Your task to perform on an android device: turn off sleep mode Image 0: 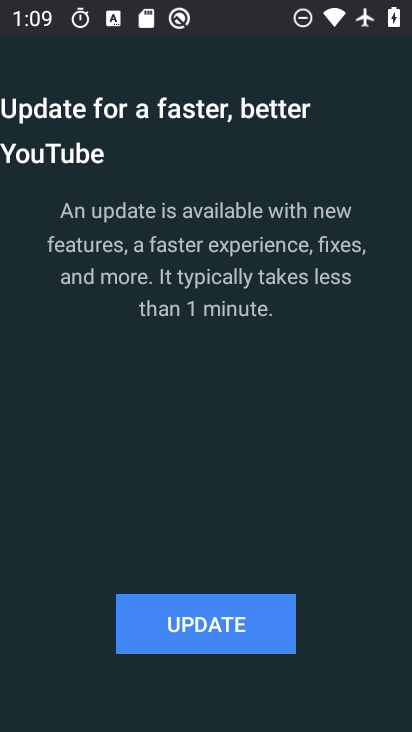
Step 0: press home button
Your task to perform on an android device: turn off sleep mode Image 1: 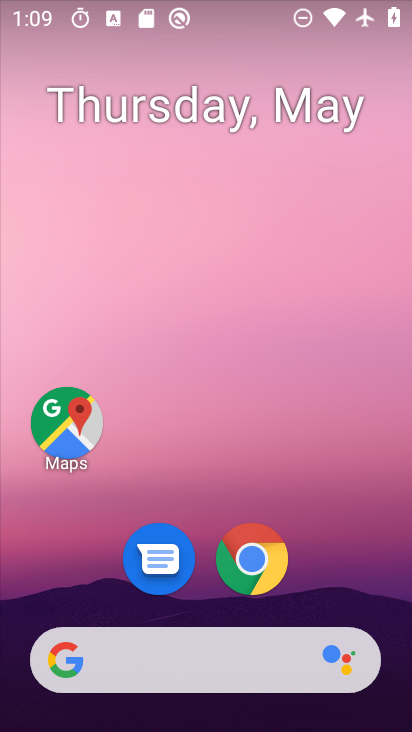
Step 1: drag from (327, 580) to (349, 136)
Your task to perform on an android device: turn off sleep mode Image 2: 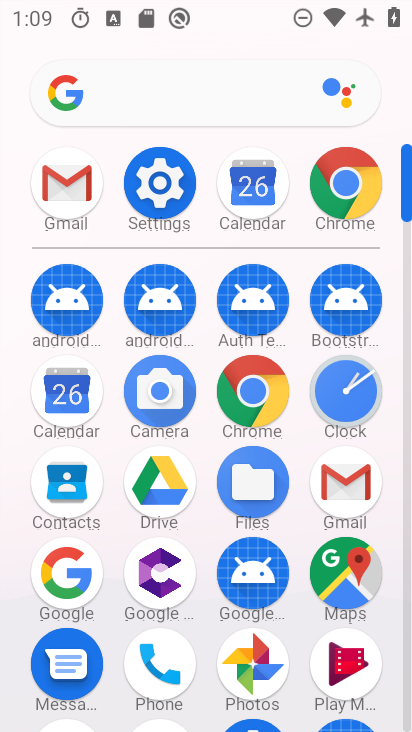
Step 2: click (141, 193)
Your task to perform on an android device: turn off sleep mode Image 3: 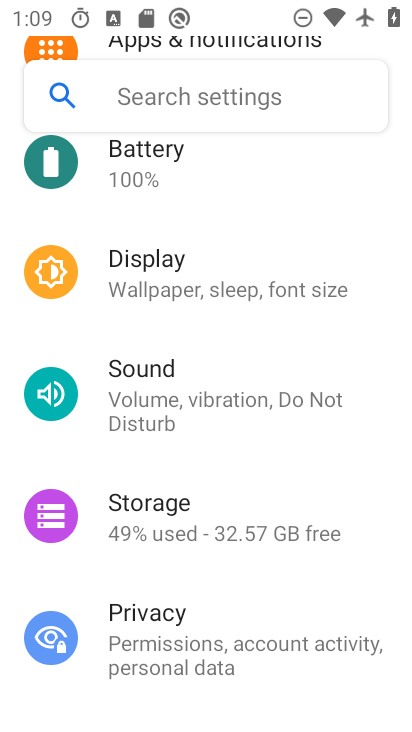
Step 3: click (203, 282)
Your task to perform on an android device: turn off sleep mode Image 4: 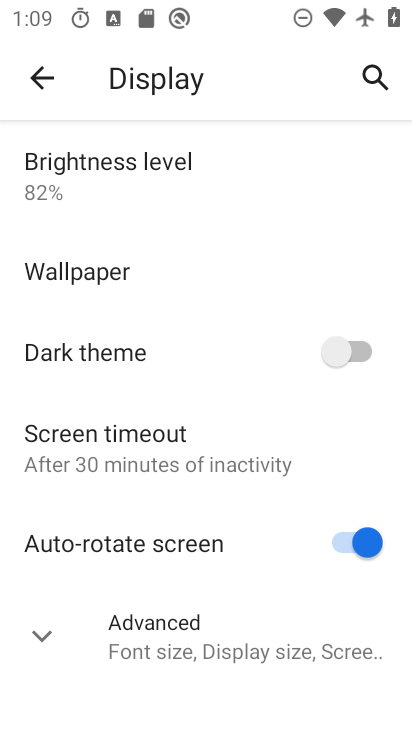
Step 4: click (212, 639)
Your task to perform on an android device: turn off sleep mode Image 5: 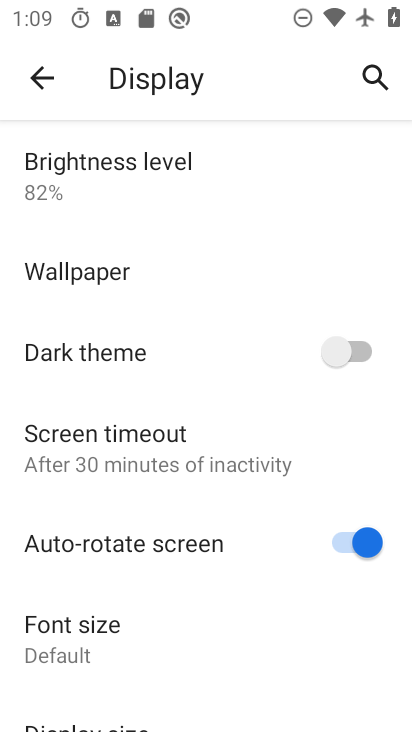
Step 5: task complete